Your task to perform on an android device: Do I have any events today? Image 0: 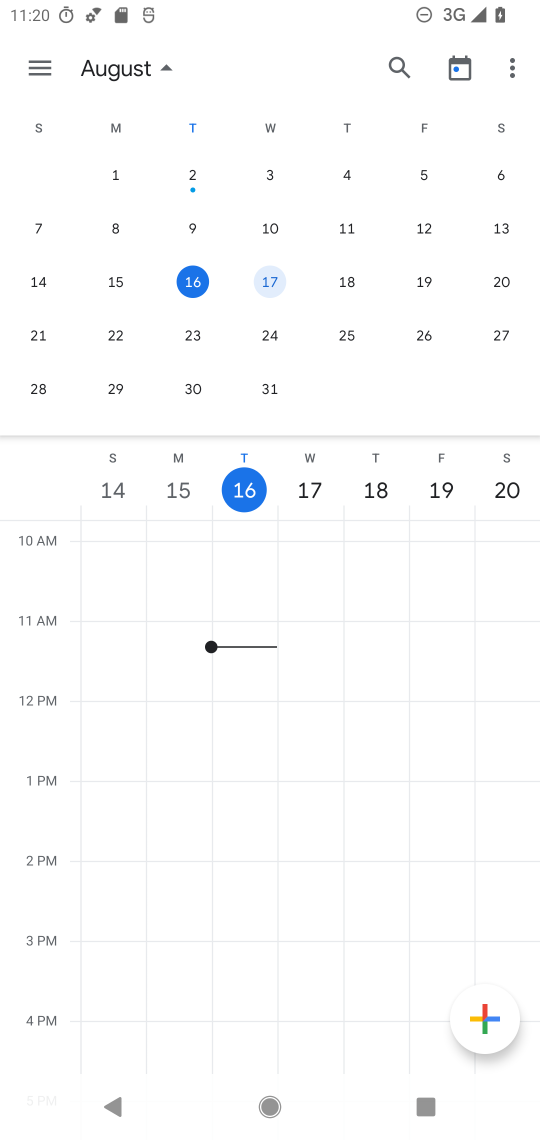
Step 0: press home button
Your task to perform on an android device: Do I have any events today? Image 1: 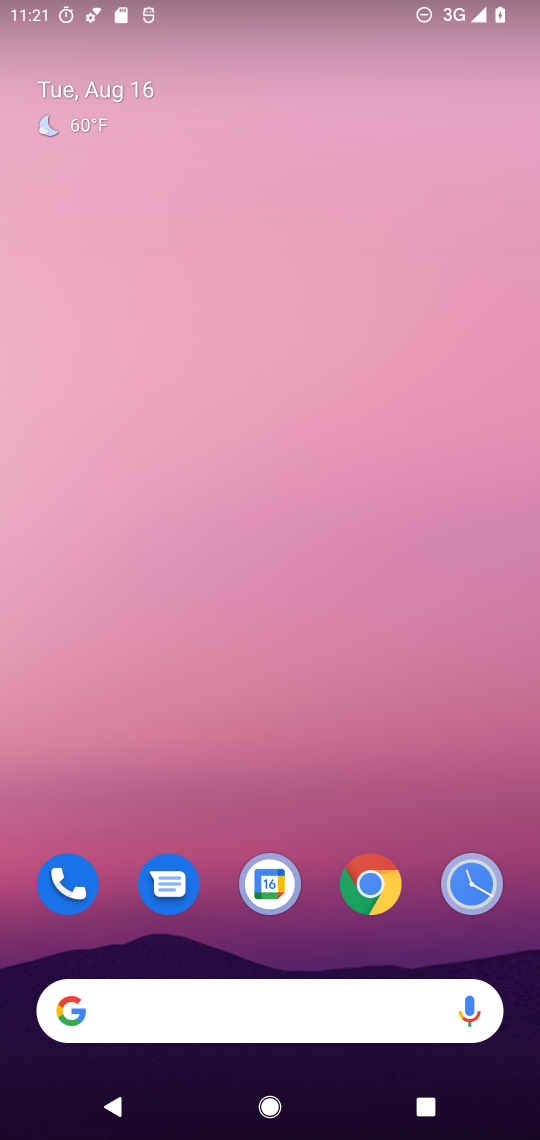
Step 1: drag from (242, 789) to (242, 244)
Your task to perform on an android device: Do I have any events today? Image 2: 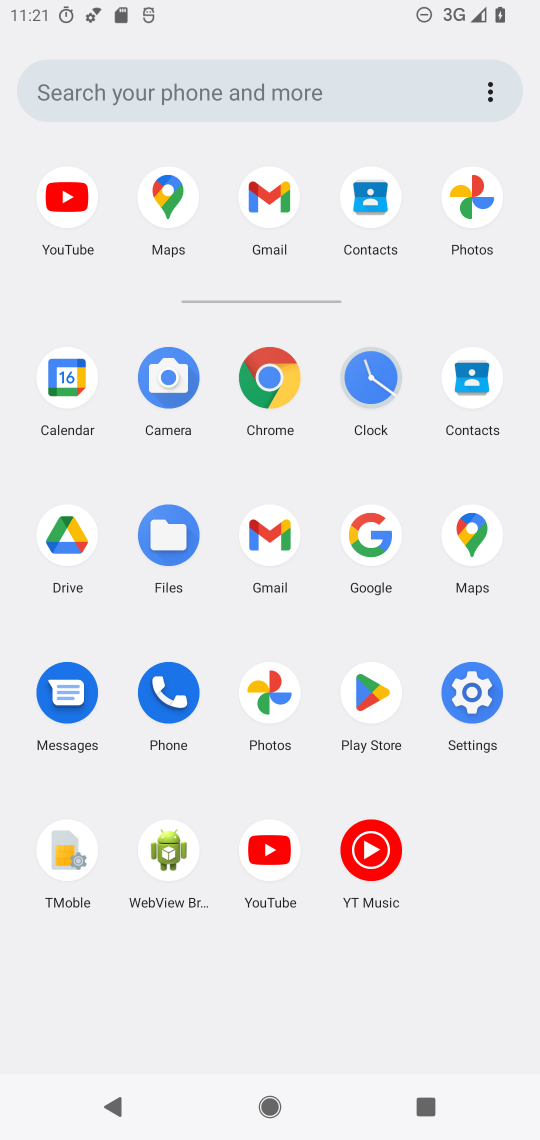
Step 2: click (74, 375)
Your task to perform on an android device: Do I have any events today? Image 3: 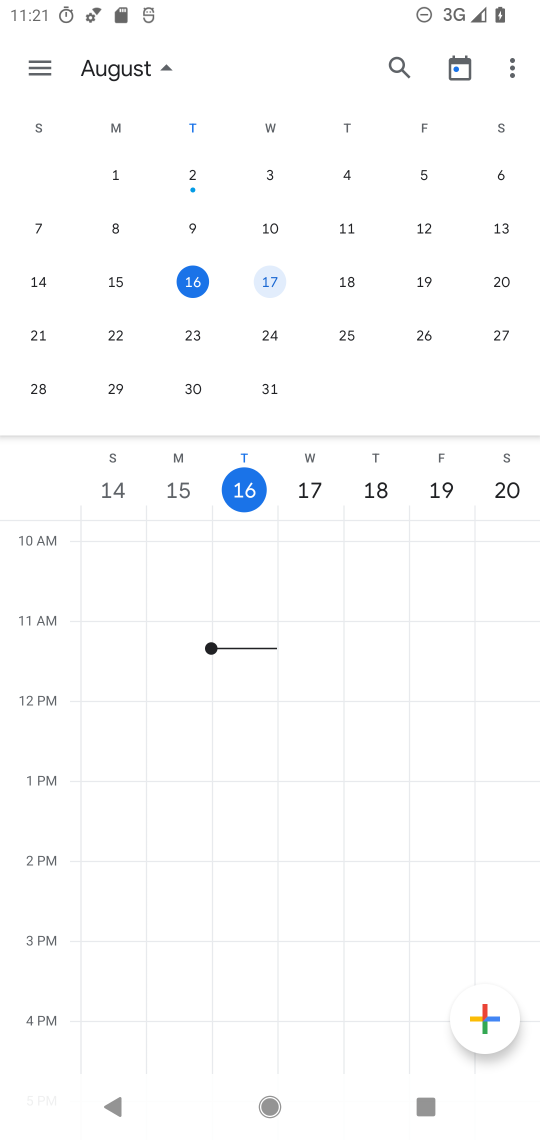
Step 3: task complete